Your task to perform on an android device: move a message to another label in the gmail app Image 0: 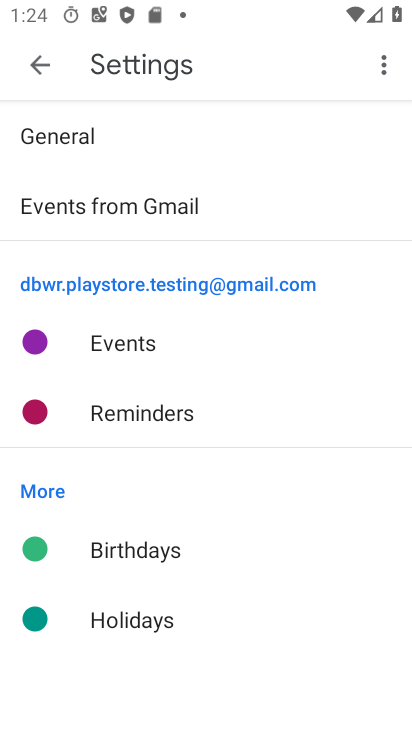
Step 0: press home button
Your task to perform on an android device: move a message to another label in the gmail app Image 1: 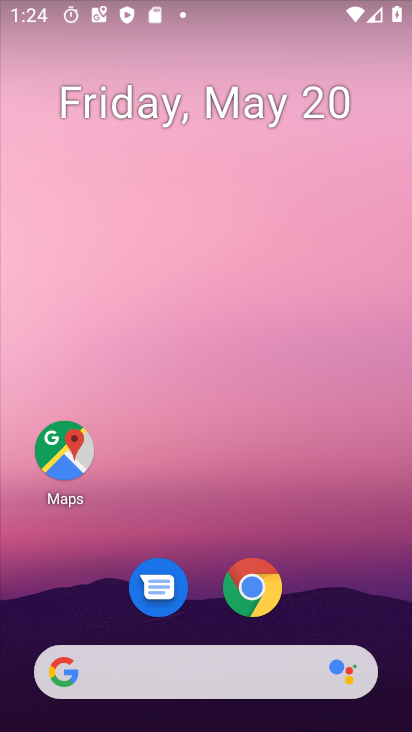
Step 1: drag from (313, 481) to (391, 82)
Your task to perform on an android device: move a message to another label in the gmail app Image 2: 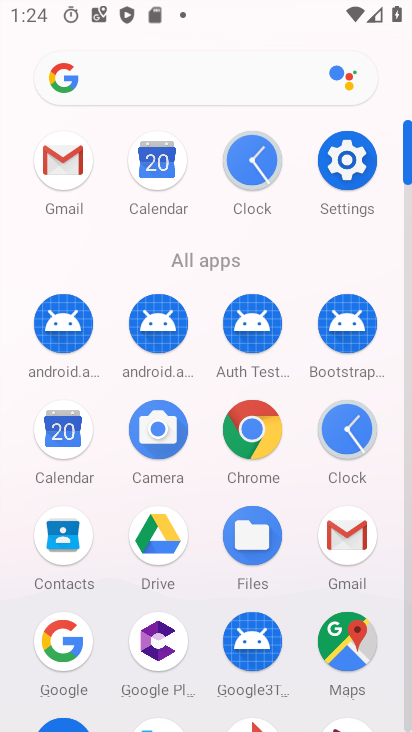
Step 2: click (76, 151)
Your task to perform on an android device: move a message to another label in the gmail app Image 3: 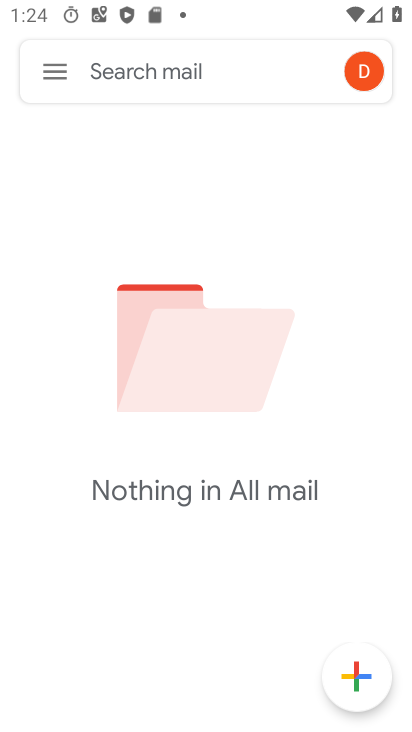
Step 3: click (57, 64)
Your task to perform on an android device: move a message to another label in the gmail app Image 4: 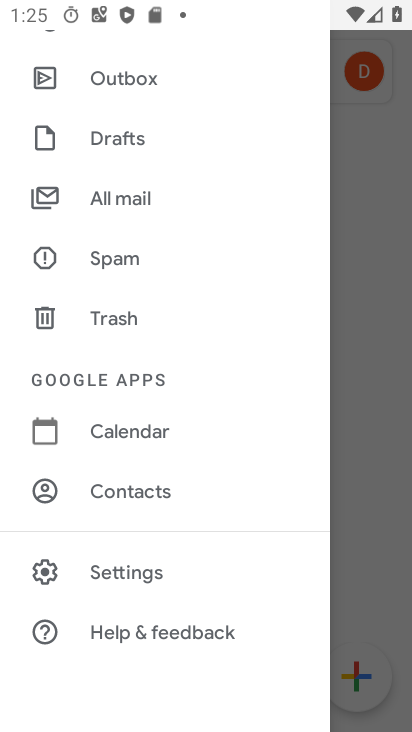
Step 4: click (79, 206)
Your task to perform on an android device: move a message to another label in the gmail app Image 5: 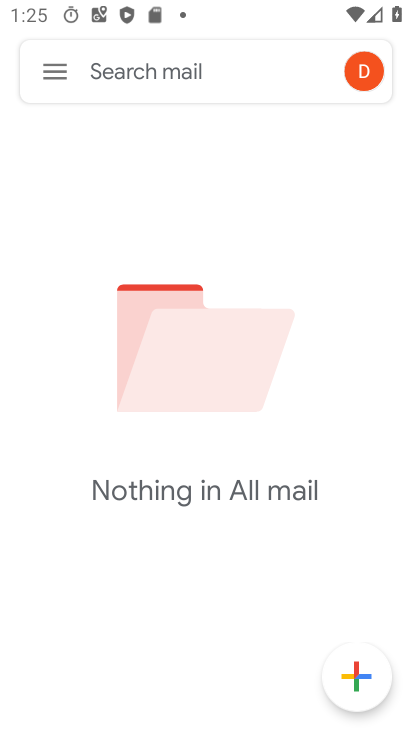
Step 5: task complete